Your task to perform on an android device: toggle show notifications on the lock screen Image 0: 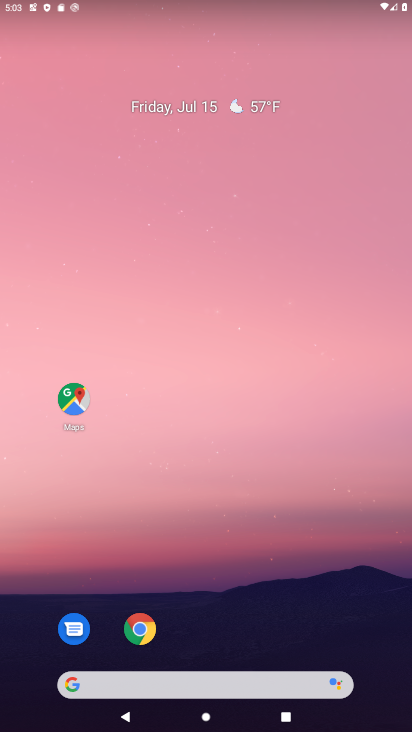
Step 0: press home button
Your task to perform on an android device: toggle show notifications on the lock screen Image 1: 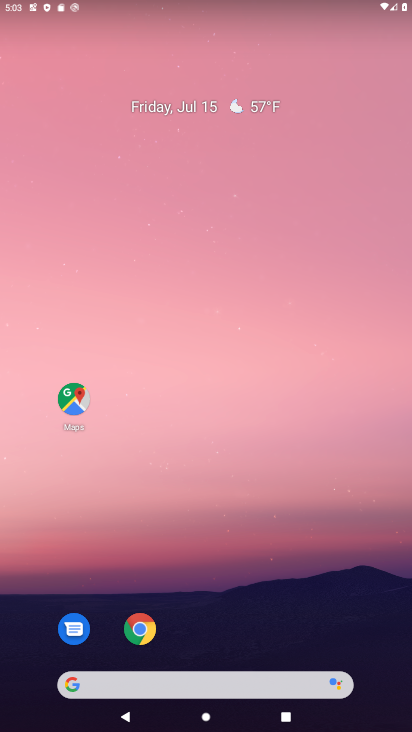
Step 1: drag from (247, 365) to (345, 12)
Your task to perform on an android device: toggle show notifications on the lock screen Image 2: 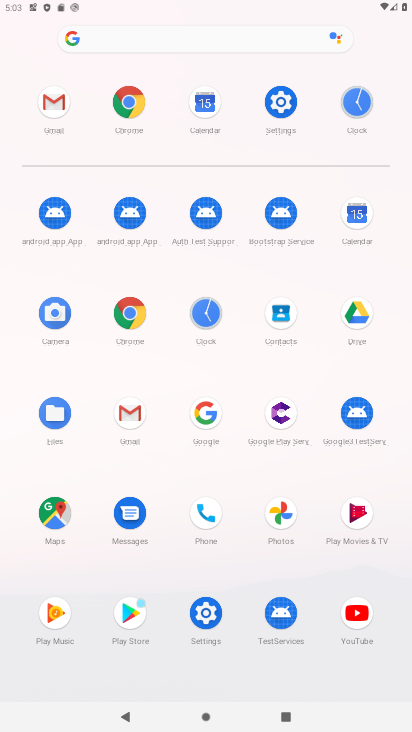
Step 2: click (273, 99)
Your task to perform on an android device: toggle show notifications on the lock screen Image 3: 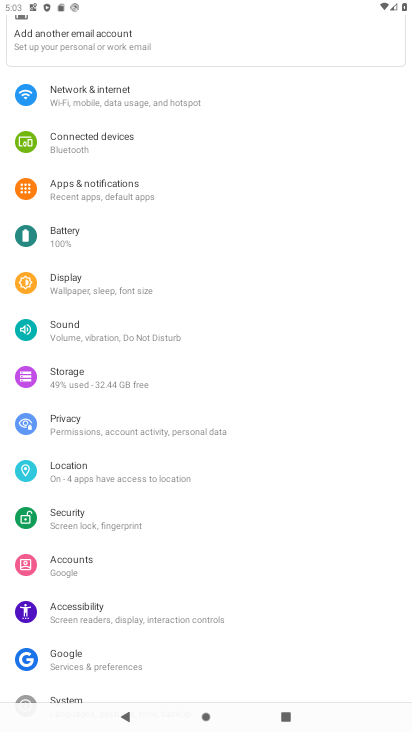
Step 3: click (85, 186)
Your task to perform on an android device: toggle show notifications on the lock screen Image 4: 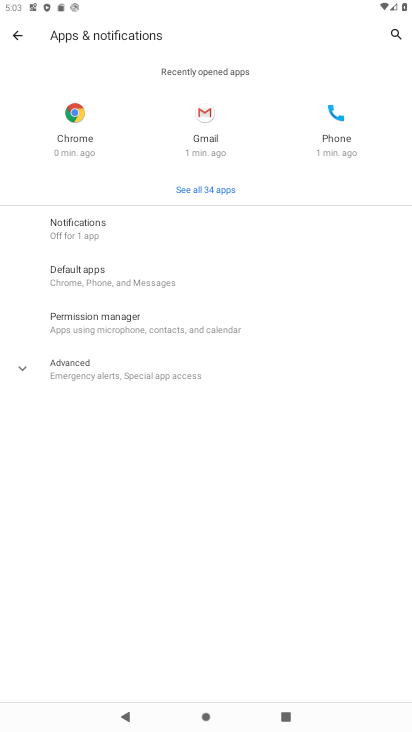
Step 4: click (80, 229)
Your task to perform on an android device: toggle show notifications on the lock screen Image 5: 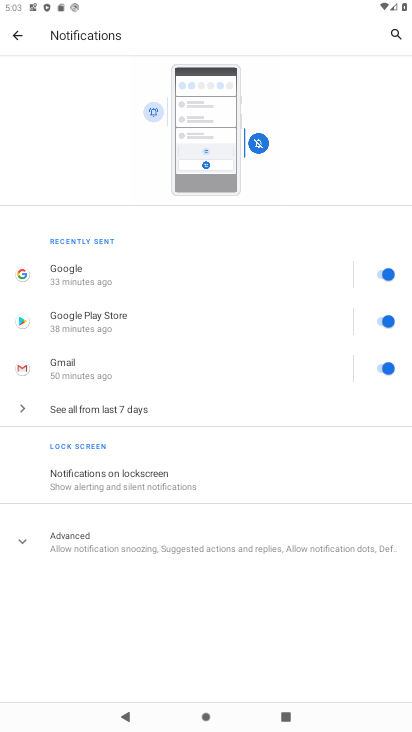
Step 5: click (62, 479)
Your task to perform on an android device: toggle show notifications on the lock screen Image 6: 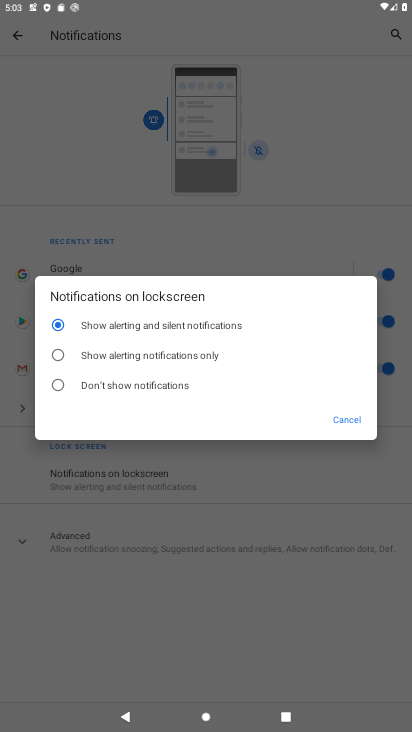
Step 6: task complete